Your task to perform on an android device: Go to CNN.com Image 0: 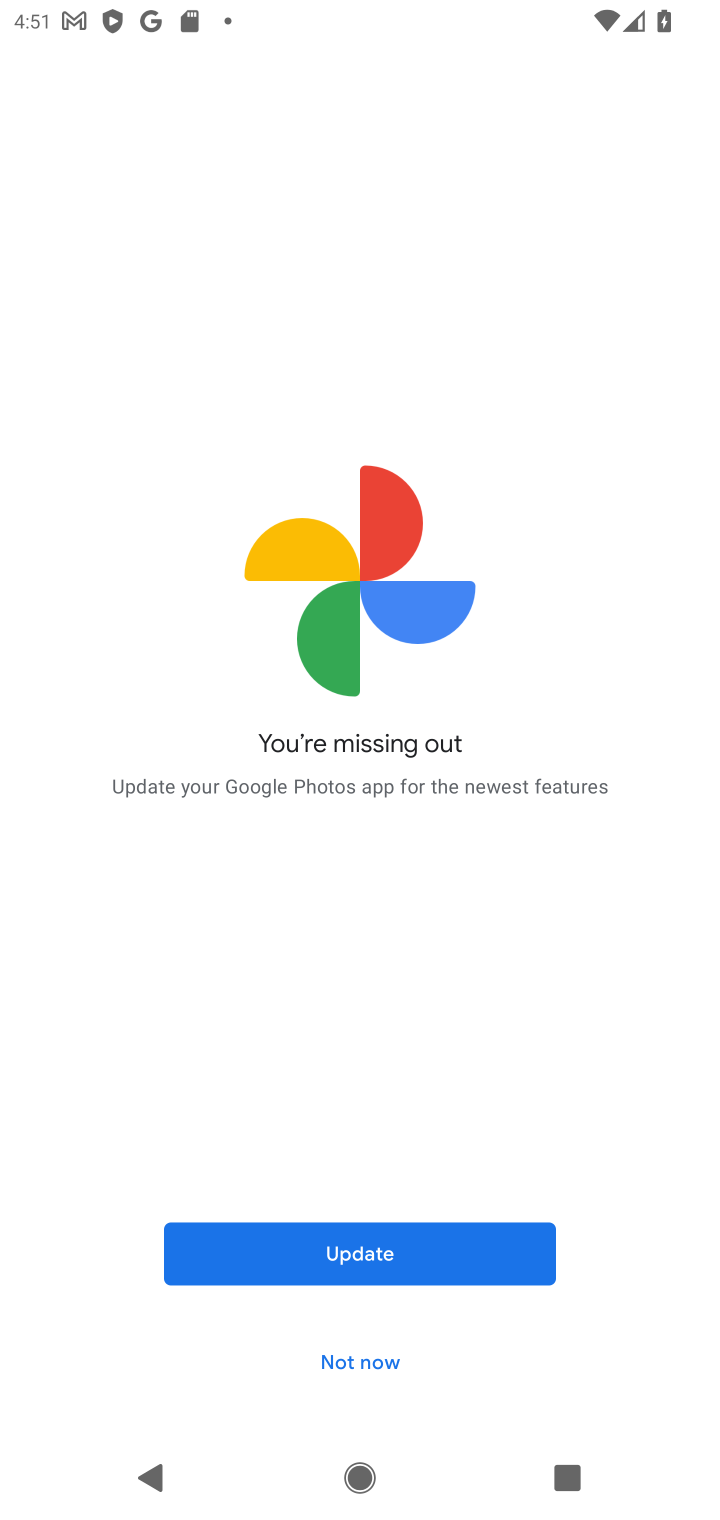
Step 0: press home button
Your task to perform on an android device: Go to CNN.com Image 1: 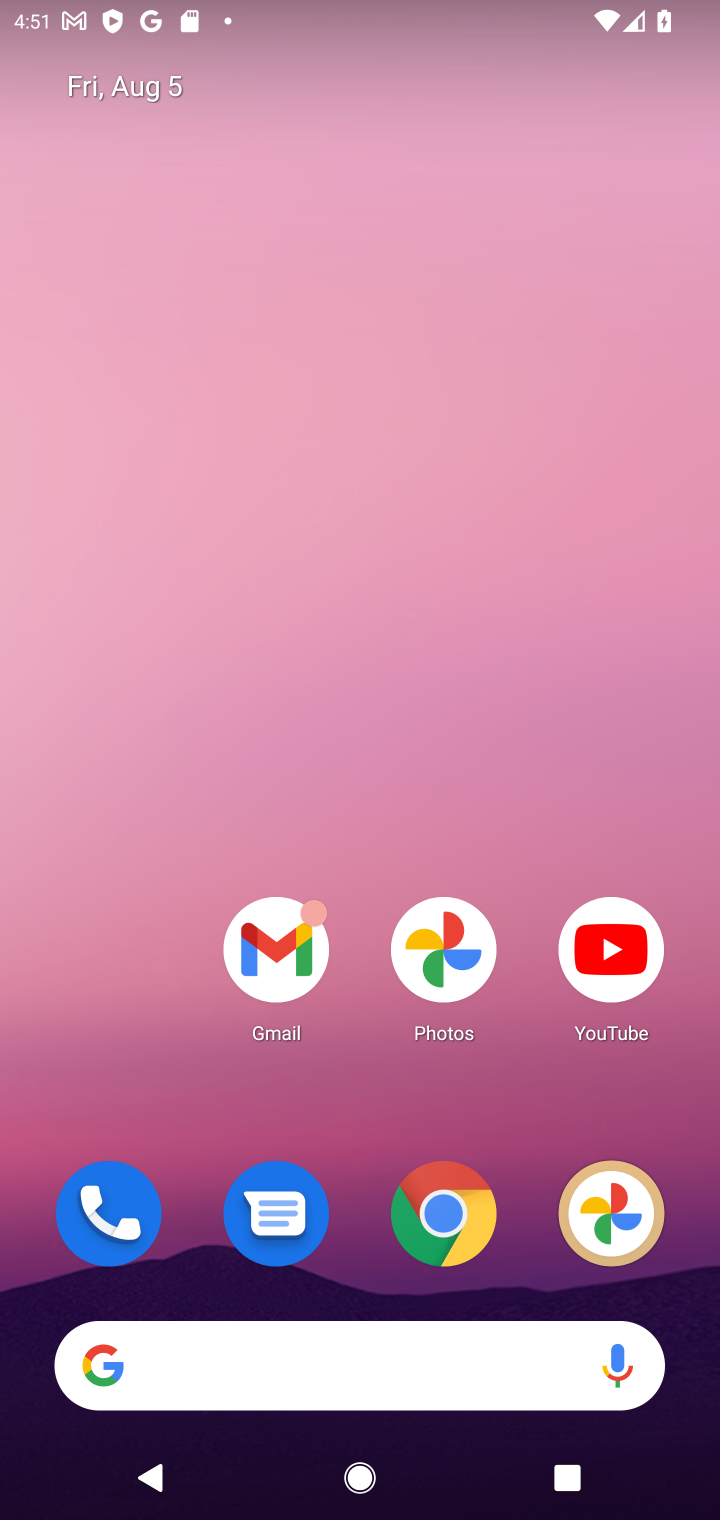
Step 1: click (428, 1228)
Your task to perform on an android device: Go to CNN.com Image 2: 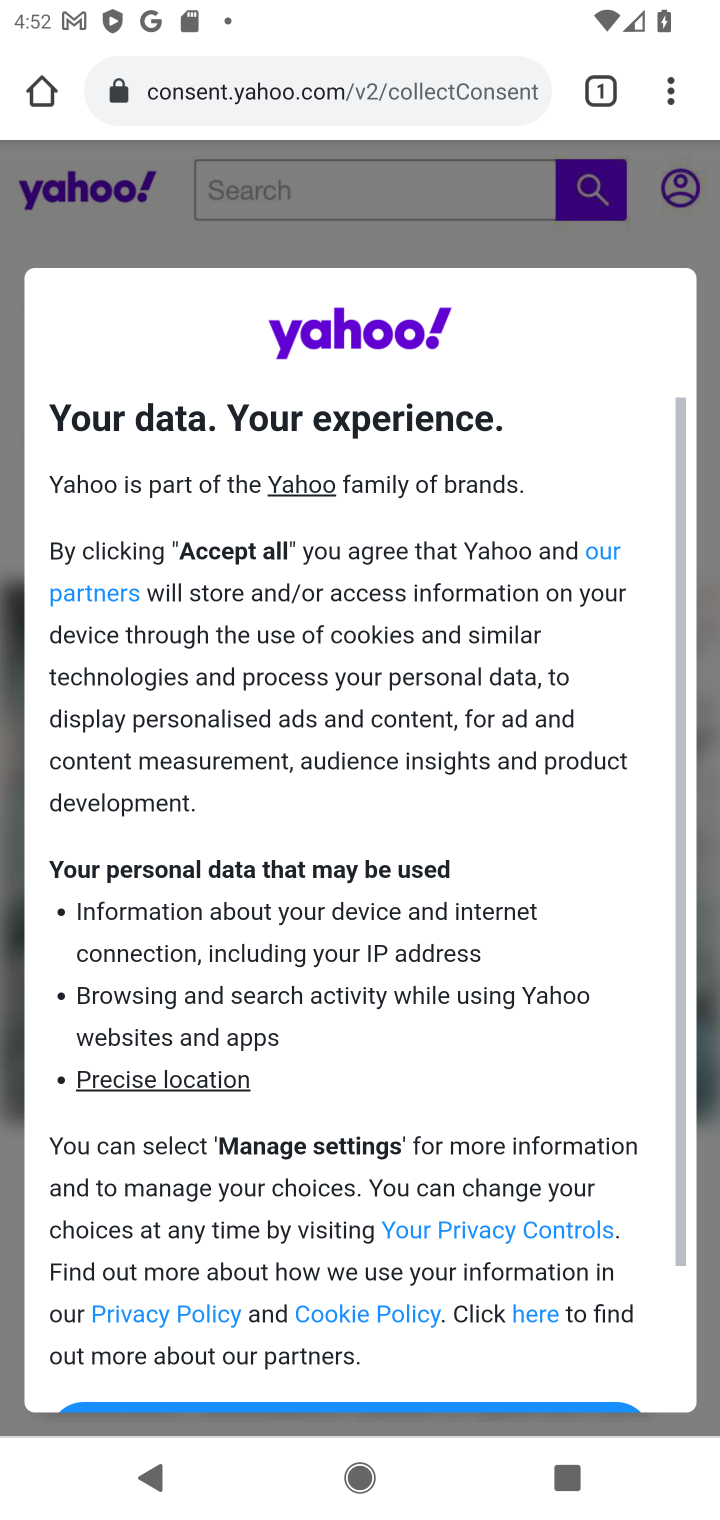
Step 2: click (265, 77)
Your task to perform on an android device: Go to CNN.com Image 3: 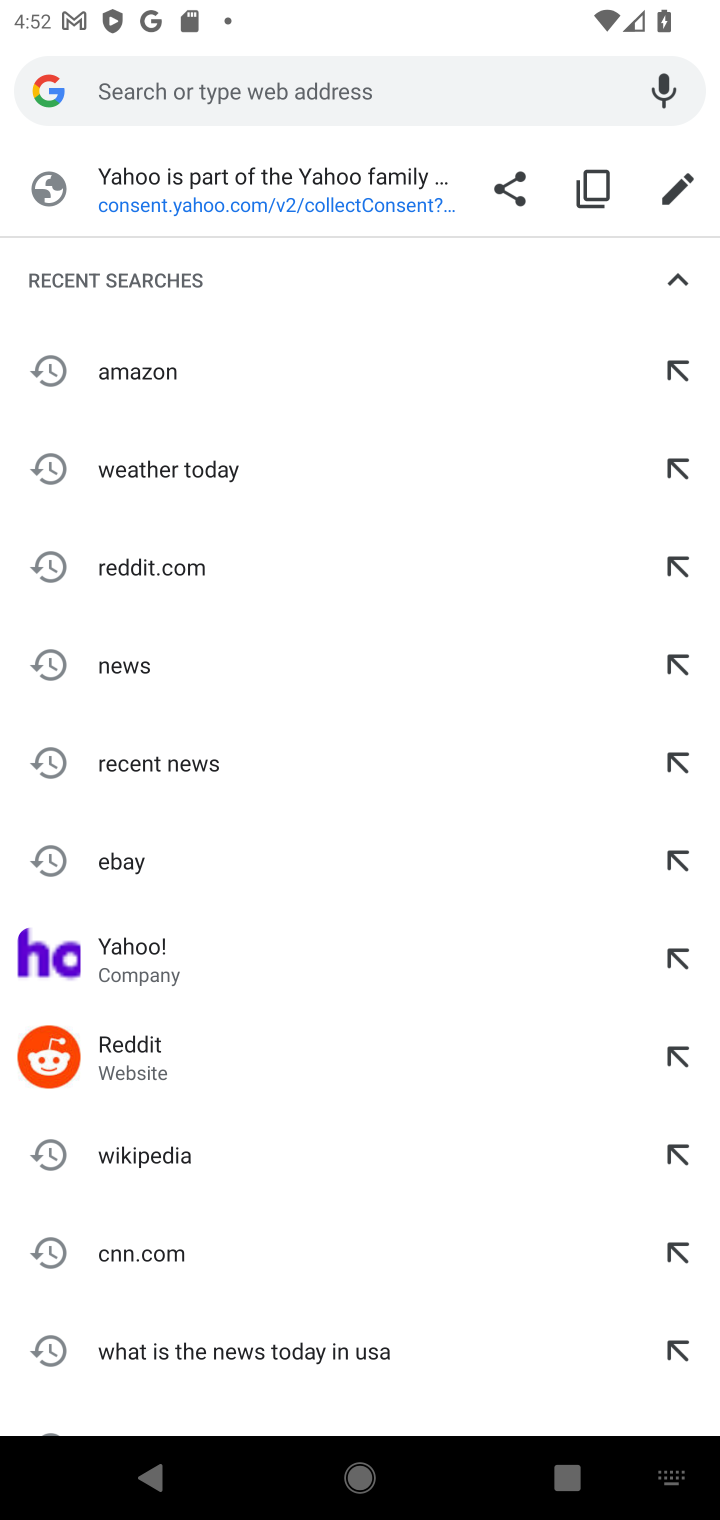
Step 3: type "cnn.com"
Your task to perform on an android device: Go to CNN.com Image 4: 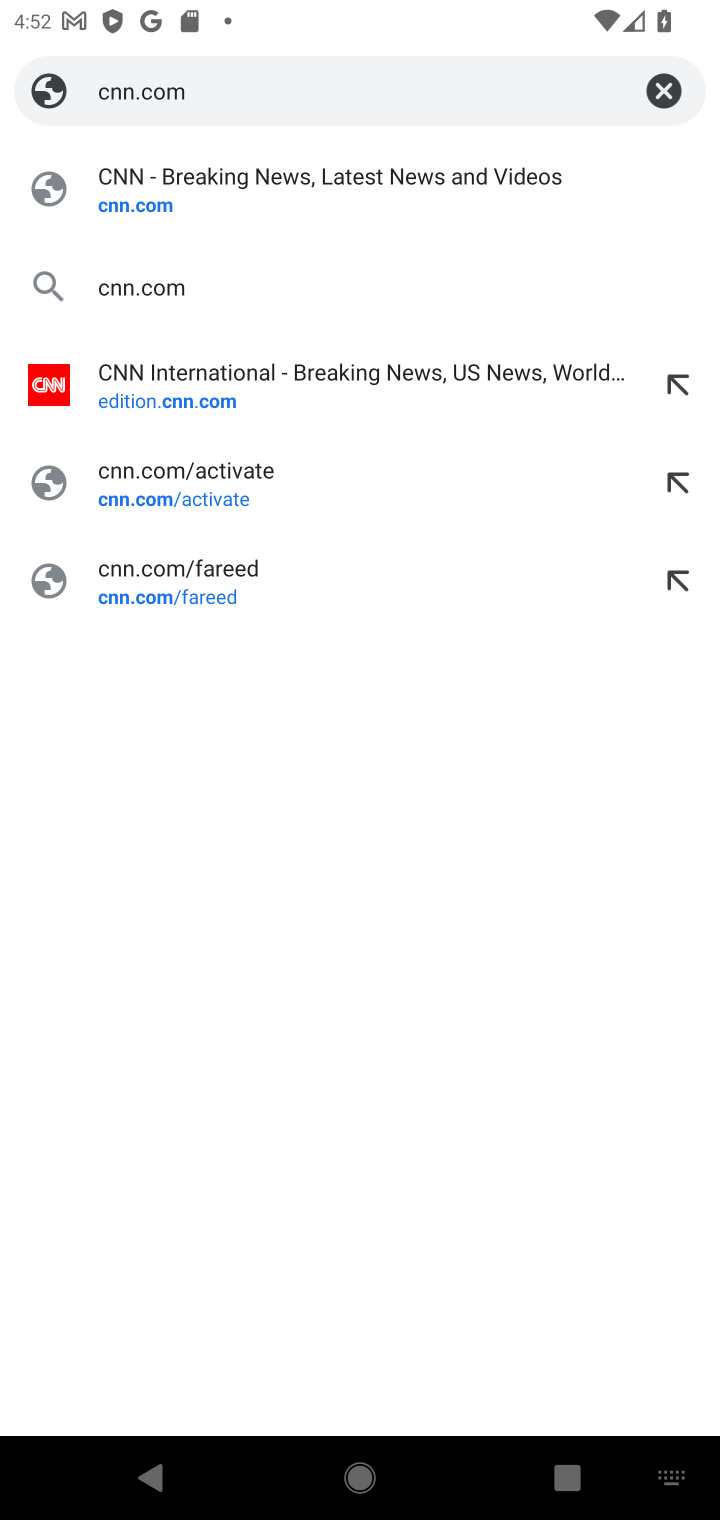
Step 4: click (345, 227)
Your task to perform on an android device: Go to CNN.com Image 5: 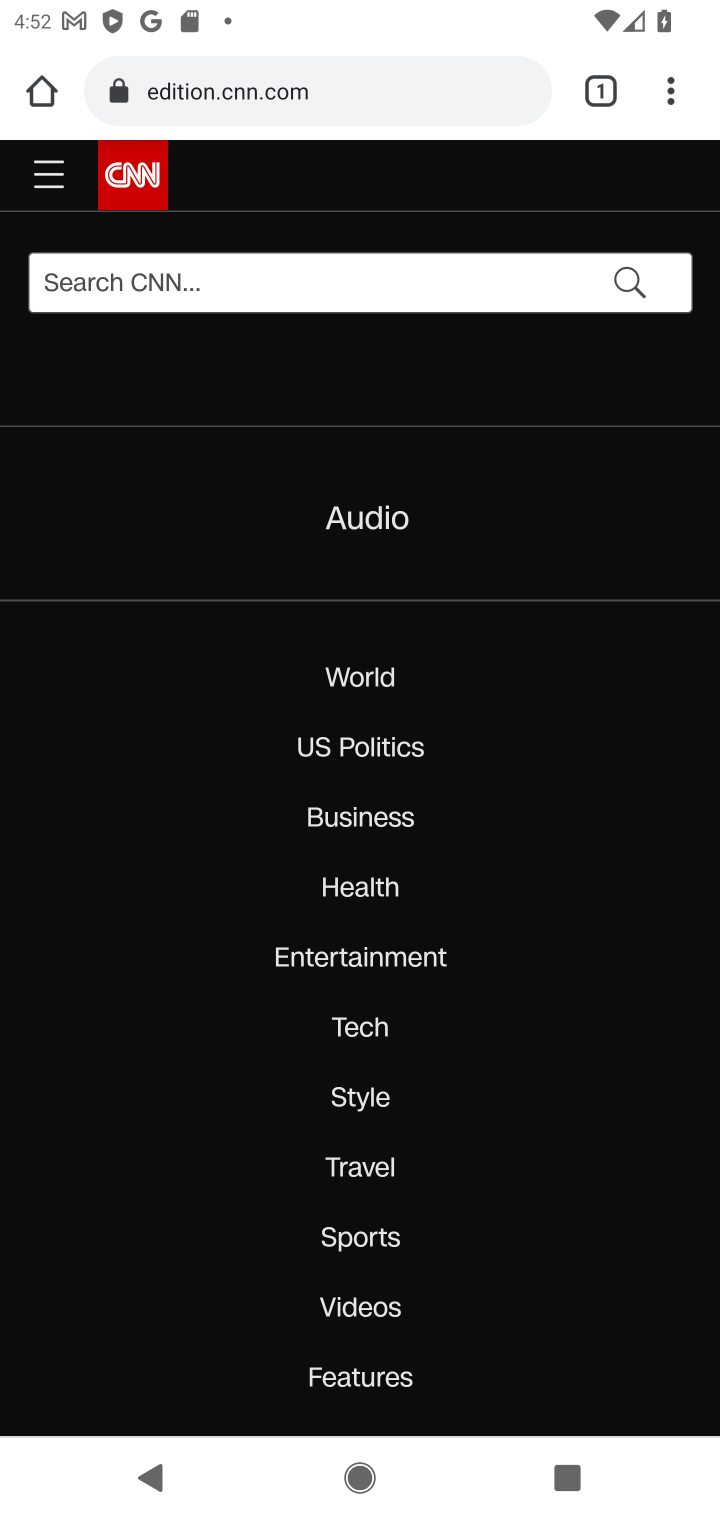
Step 5: task complete